Your task to perform on an android device: Open the calendar and show me this week's events? Image 0: 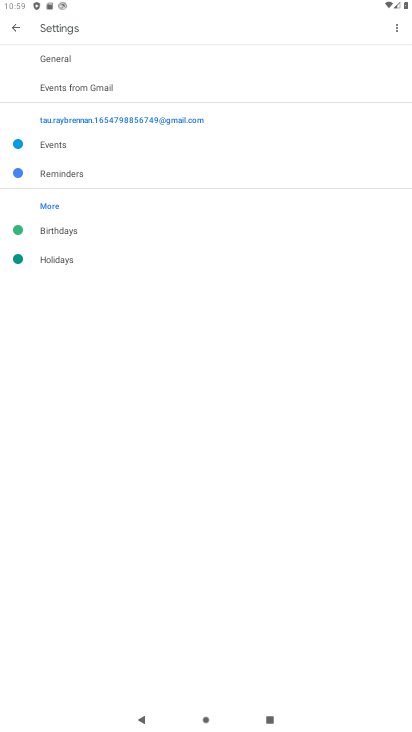
Step 0: press home button
Your task to perform on an android device: Open the calendar and show me this week's events? Image 1: 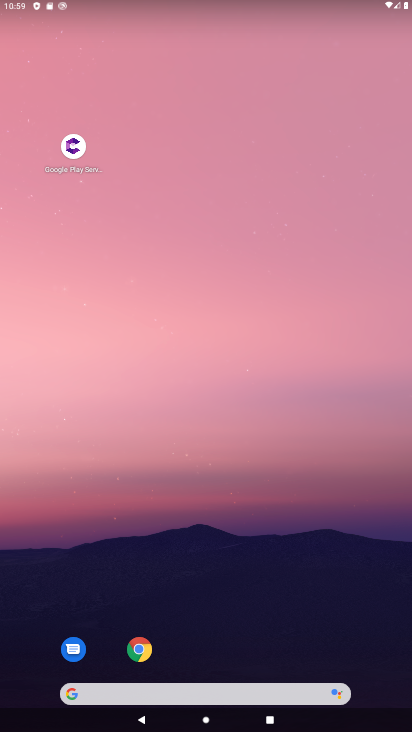
Step 1: drag from (218, 667) to (157, 75)
Your task to perform on an android device: Open the calendar and show me this week's events? Image 2: 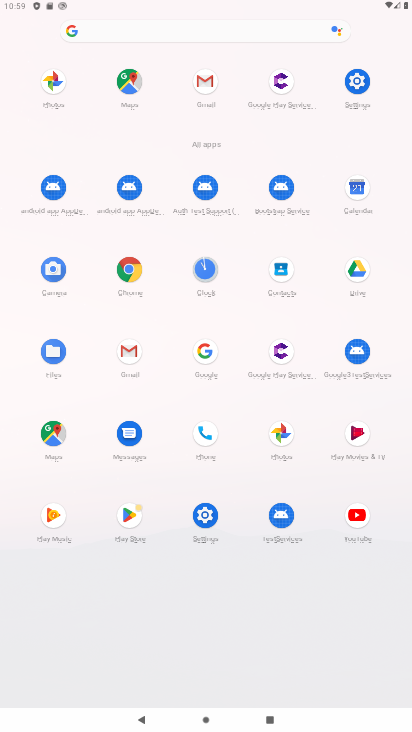
Step 2: click (348, 191)
Your task to perform on an android device: Open the calendar and show me this week's events? Image 3: 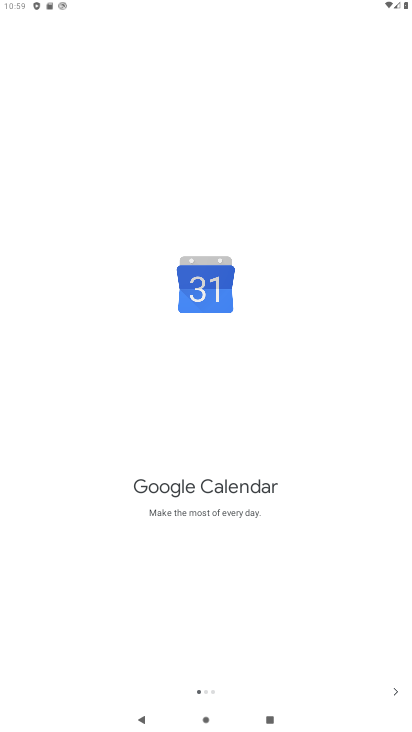
Step 3: click (394, 687)
Your task to perform on an android device: Open the calendar and show me this week's events? Image 4: 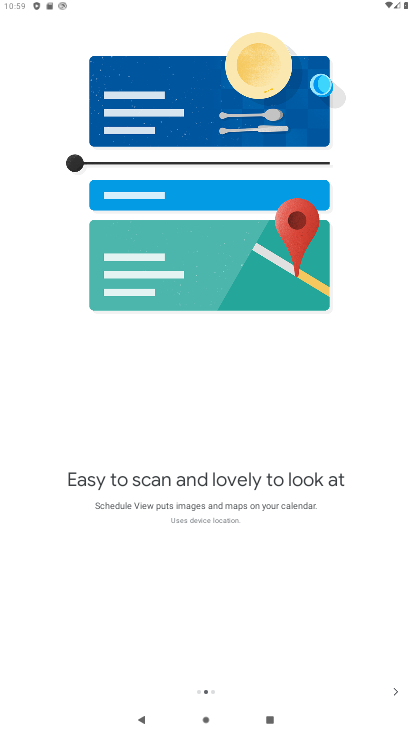
Step 4: click (394, 687)
Your task to perform on an android device: Open the calendar and show me this week's events? Image 5: 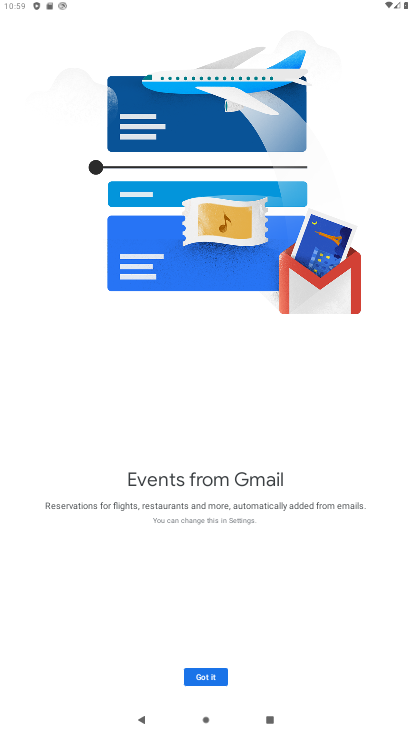
Step 5: click (221, 675)
Your task to perform on an android device: Open the calendar and show me this week's events? Image 6: 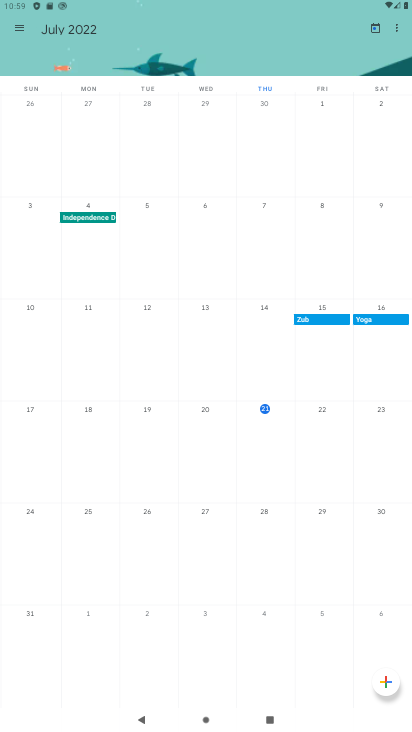
Step 6: click (13, 32)
Your task to perform on an android device: Open the calendar and show me this week's events? Image 7: 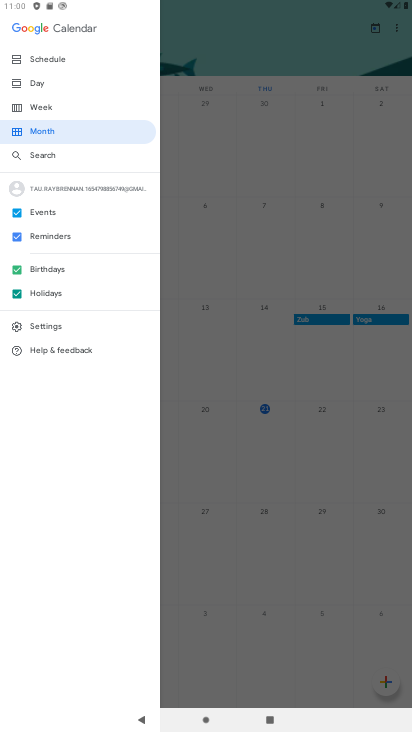
Step 7: click (32, 106)
Your task to perform on an android device: Open the calendar and show me this week's events? Image 8: 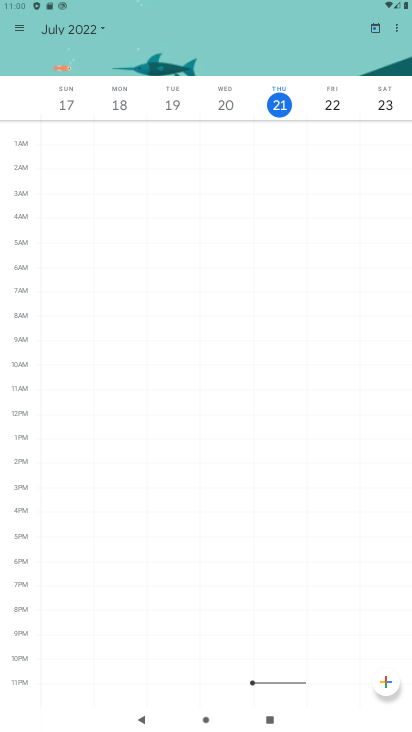
Step 8: task complete